Your task to perform on an android device: turn off sleep mode Image 0: 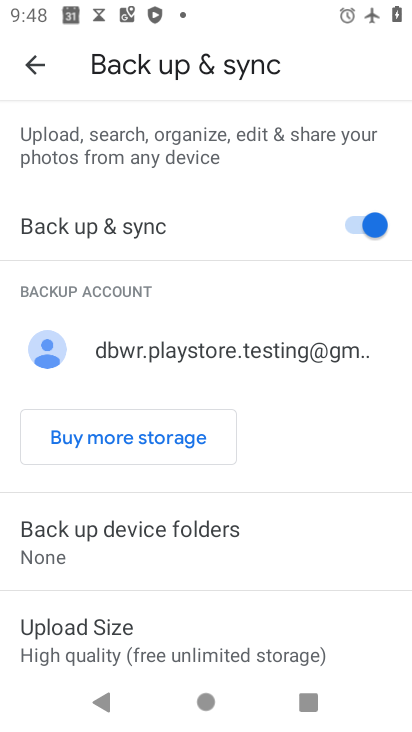
Step 0: press home button
Your task to perform on an android device: turn off sleep mode Image 1: 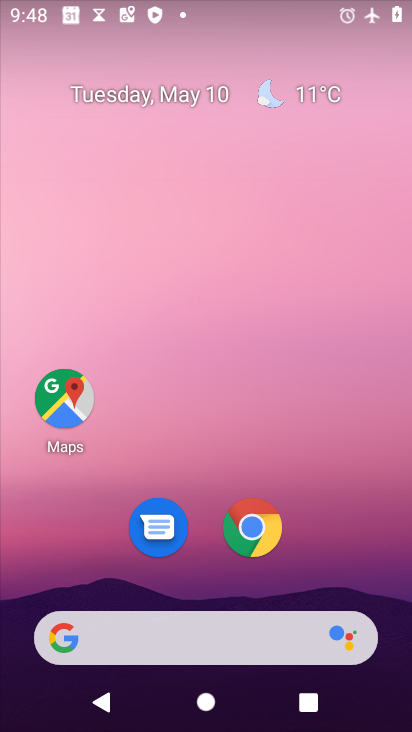
Step 1: drag from (317, 10) to (297, 513)
Your task to perform on an android device: turn off sleep mode Image 2: 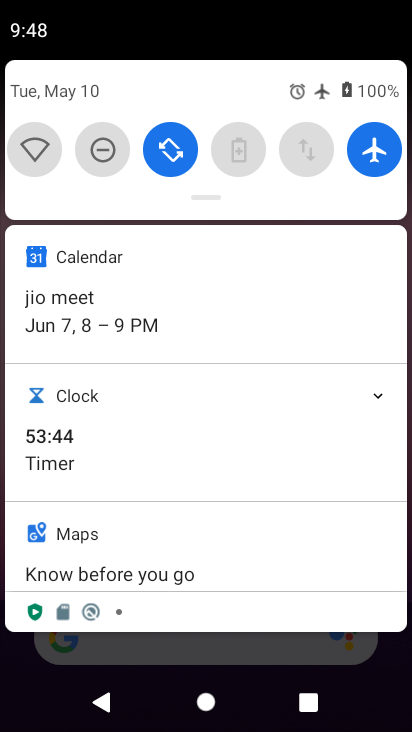
Step 2: drag from (203, 178) to (231, 595)
Your task to perform on an android device: turn off sleep mode Image 3: 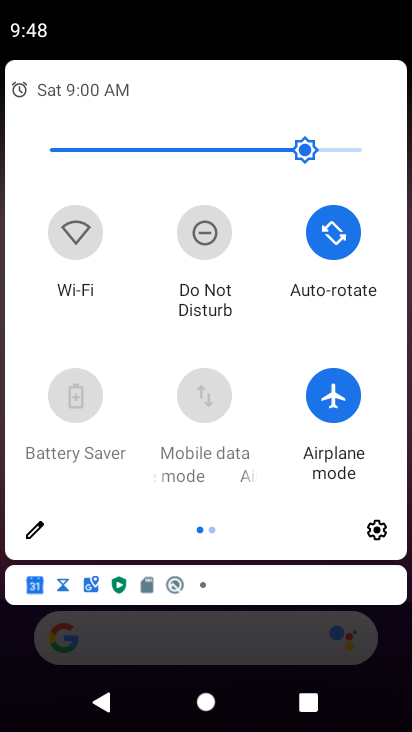
Step 3: click (29, 526)
Your task to perform on an android device: turn off sleep mode Image 4: 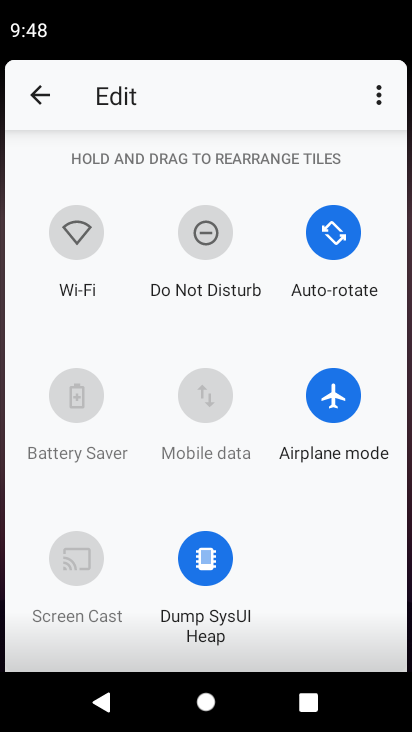
Step 4: task complete